Your task to perform on an android device: Go to internet settings Image 0: 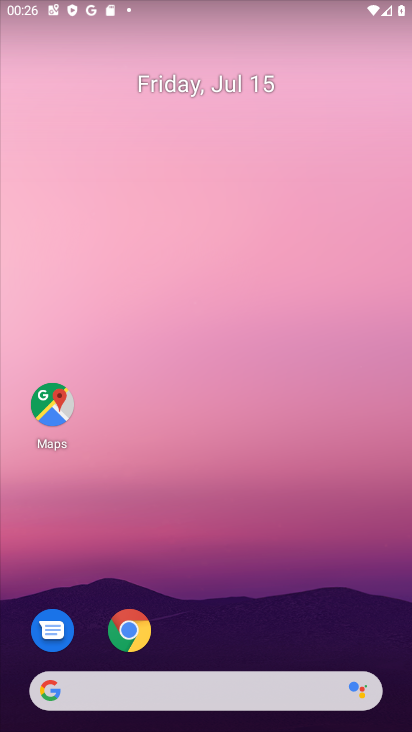
Step 0: drag from (226, 654) to (178, 143)
Your task to perform on an android device: Go to internet settings Image 1: 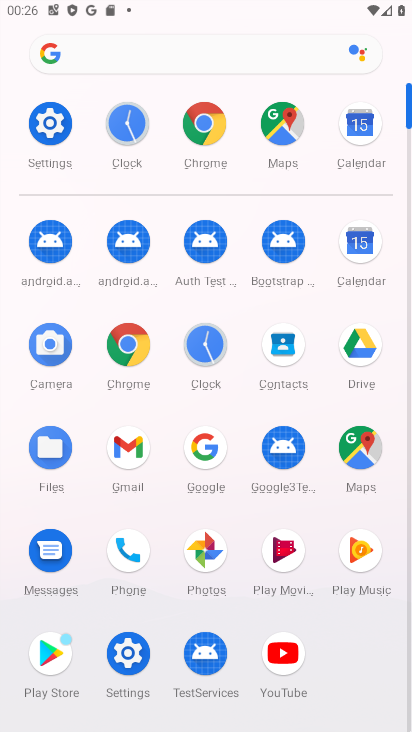
Step 1: click (39, 131)
Your task to perform on an android device: Go to internet settings Image 2: 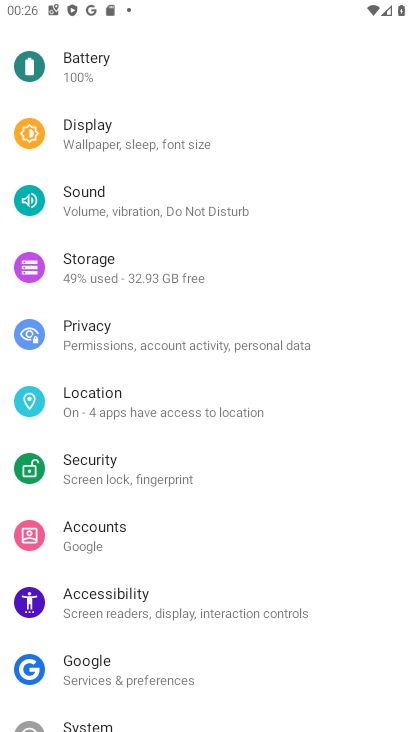
Step 2: drag from (163, 126) to (254, 491)
Your task to perform on an android device: Go to internet settings Image 3: 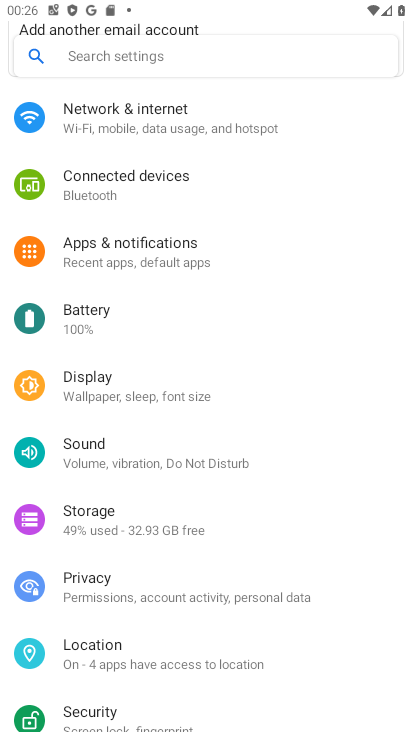
Step 3: click (224, 144)
Your task to perform on an android device: Go to internet settings Image 4: 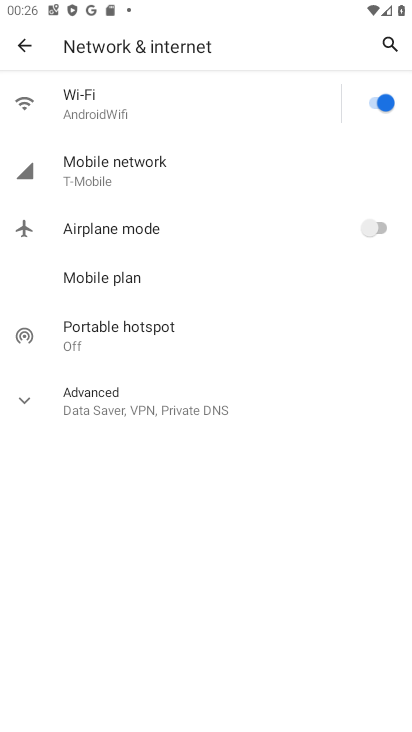
Step 4: task complete